Your task to perform on an android device: Go to wifi settings Image 0: 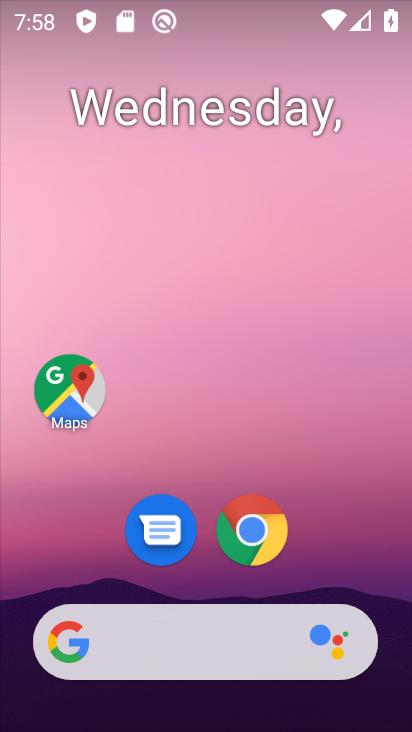
Step 0: drag from (341, 571) to (327, 18)
Your task to perform on an android device: Go to wifi settings Image 1: 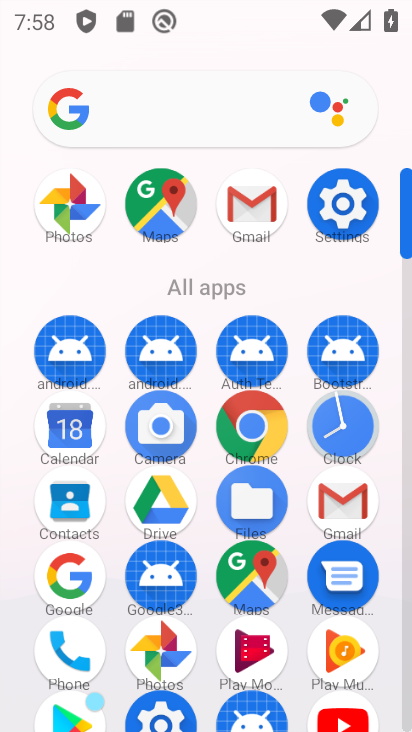
Step 1: click (352, 190)
Your task to perform on an android device: Go to wifi settings Image 2: 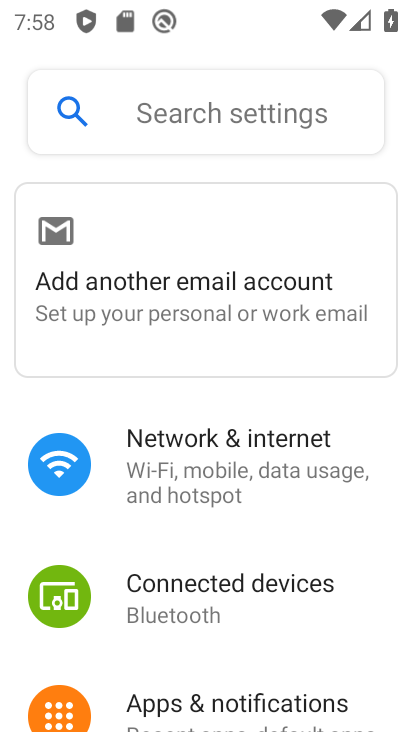
Step 2: click (194, 448)
Your task to perform on an android device: Go to wifi settings Image 3: 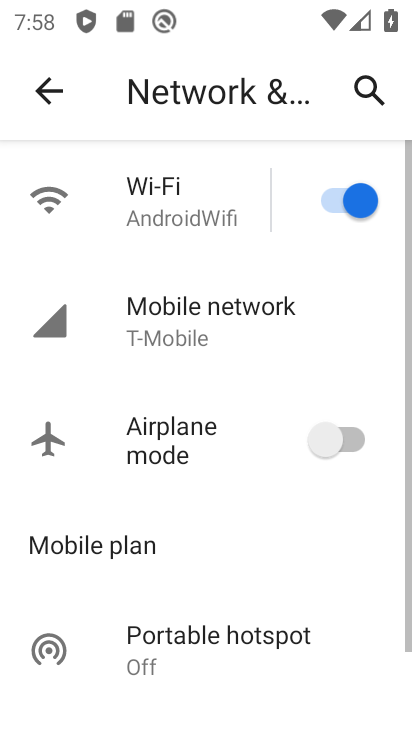
Step 3: click (94, 209)
Your task to perform on an android device: Go to wifi settings Image 4: 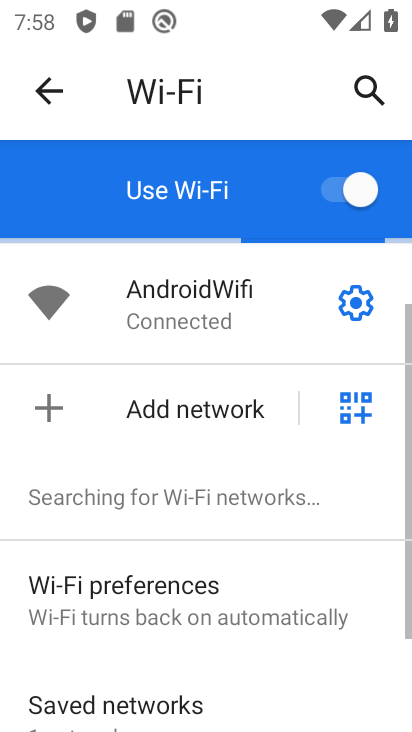
Step 4: task complete